Your task to perform on an android device: turn pop-ups off in chrome Image 0: 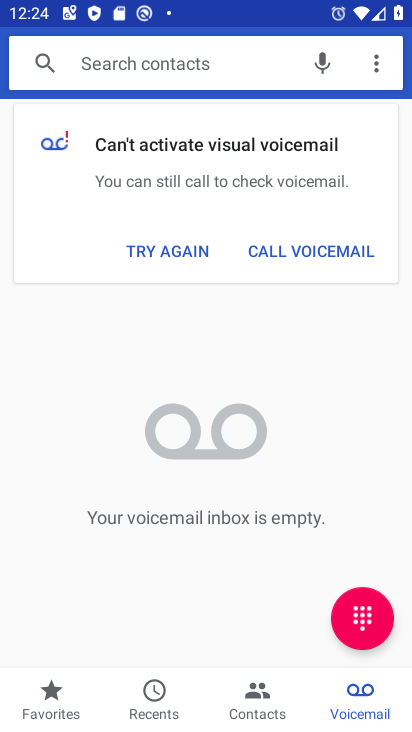
Step 0: press home button
Your task to perform on an android device: turn pop-ups off in chrome Image 1: 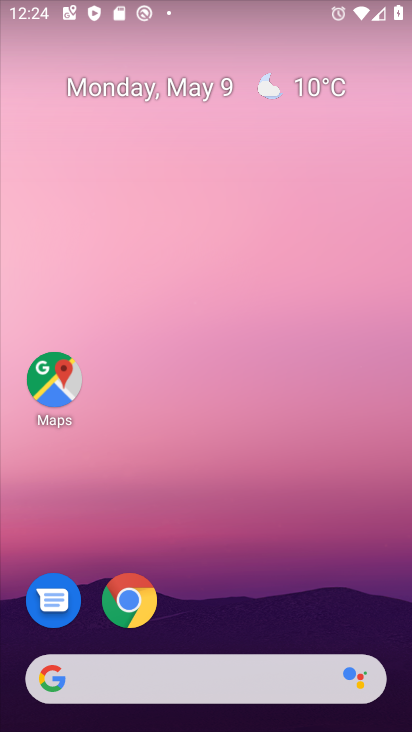
Step 1: click (134, 597)
Your task to perform on an android device: turn pop-ups off in chrome Image 2: 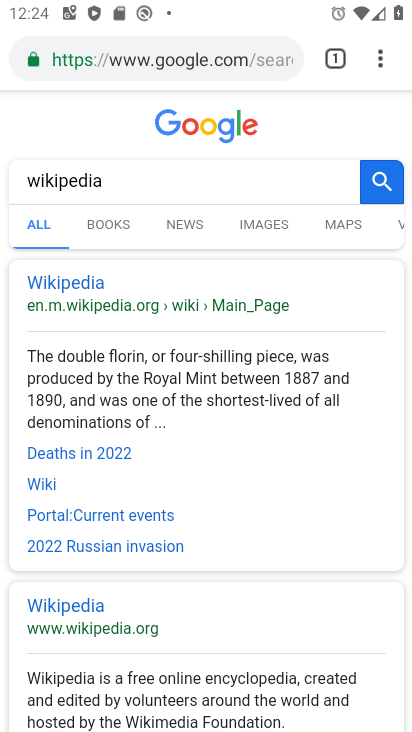
Step 2: click (383, 56)
Your task to perform on an android device: turn pop-ups off in chrome Image 3: 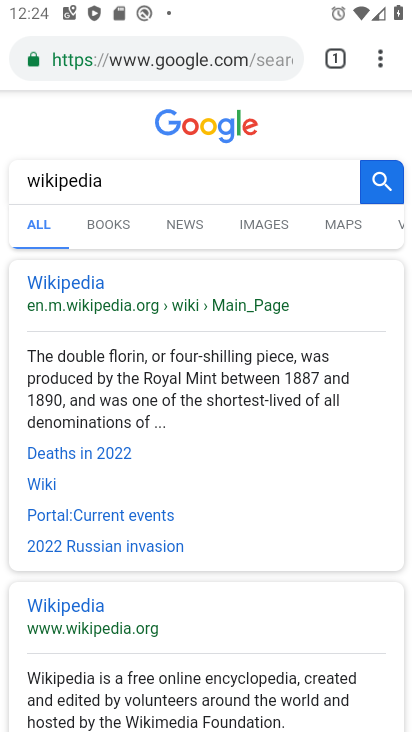
Step 3: click (376, 45)
Your task to perform on an android device: turn pop-ups off in chrome Image 4: 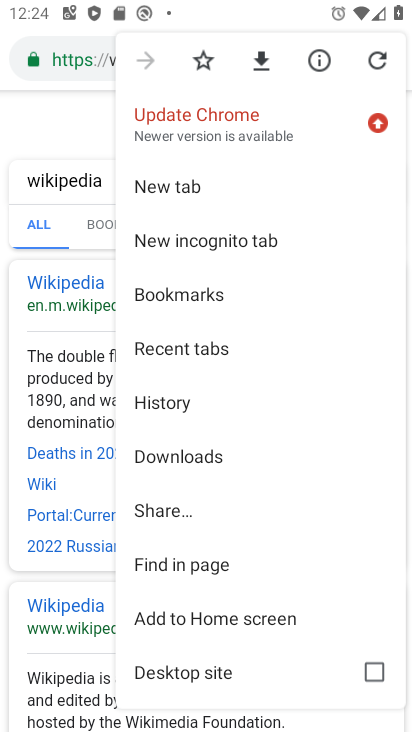
Step 4: drag from (217, 510) to (246, 256)
Your task to perform on an android device: turn pop-ups off in chrome Image 5: 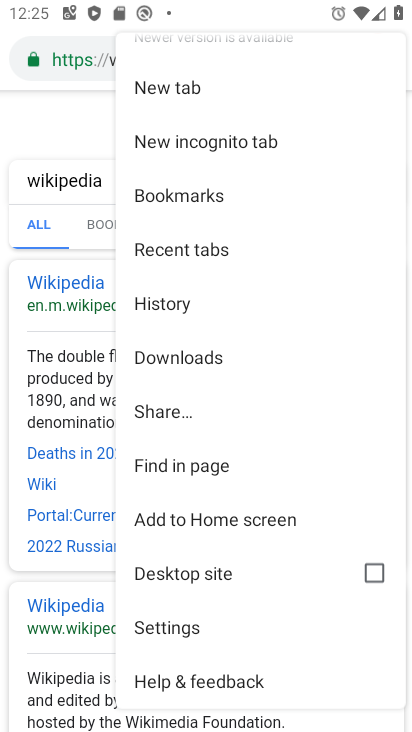
Step 5: click (182, 617)
Your task to perform on an android device: turn pop-ups off in chrome Image 6: 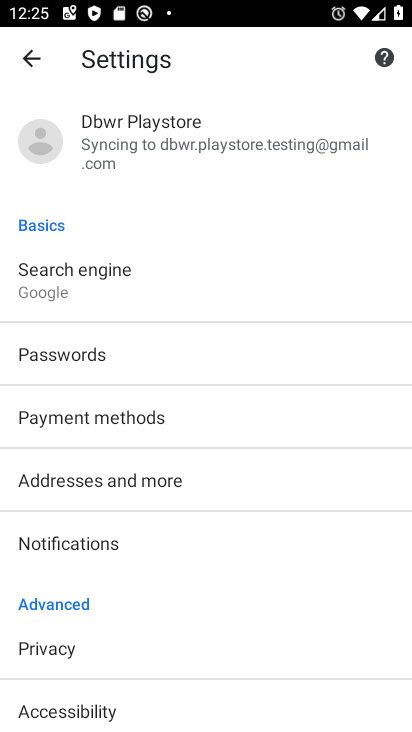
Step 6: drag from (132, 597) to (217, 233)
Your task to perform on an android device: turn pop-ups off in chrome Image 7: 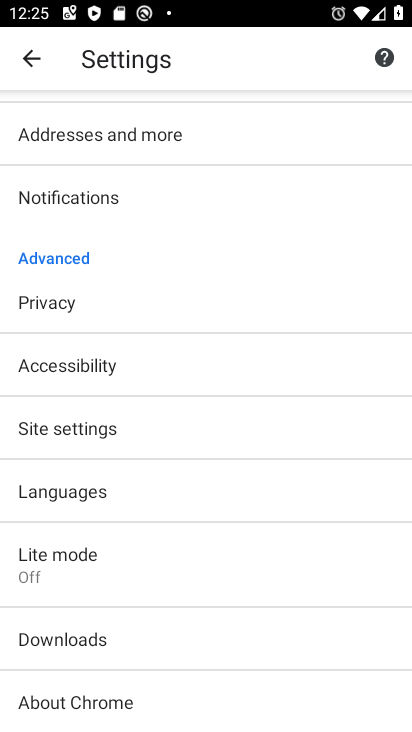
Step 7: click (81, 431)
Your task to perform on an android device: turn pop-ups off in chrome Image 8: 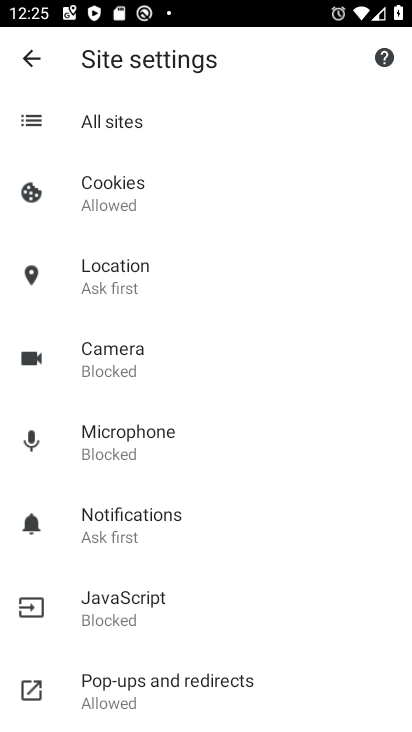
Step 8: click (206, 675)
Your task to perform on an android device: turn pop-ups off in chrome Image 9: 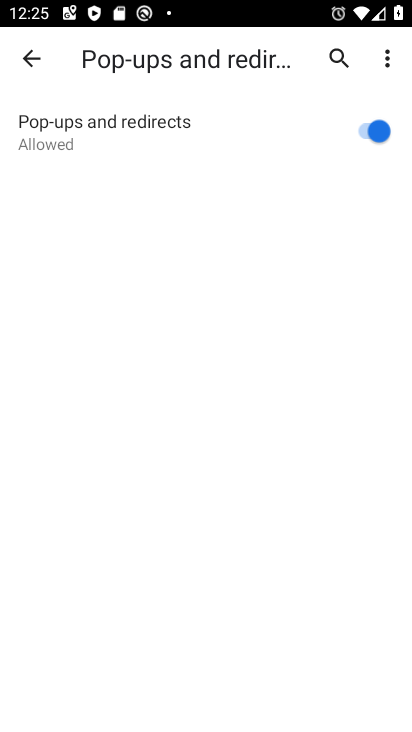
Step 9: click (358, 133)
Your task to perform on an android device: turn pop-ups off in chrome Image 10: 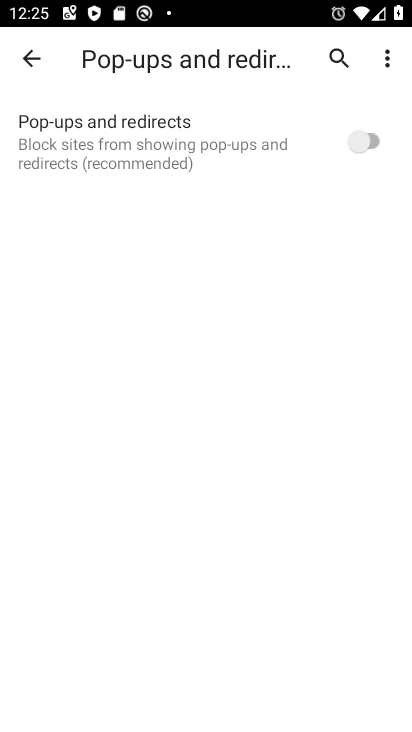
Step 10: task complete